Your task to perform on an android device: Open calendar and show me the second week of next month Image 0: 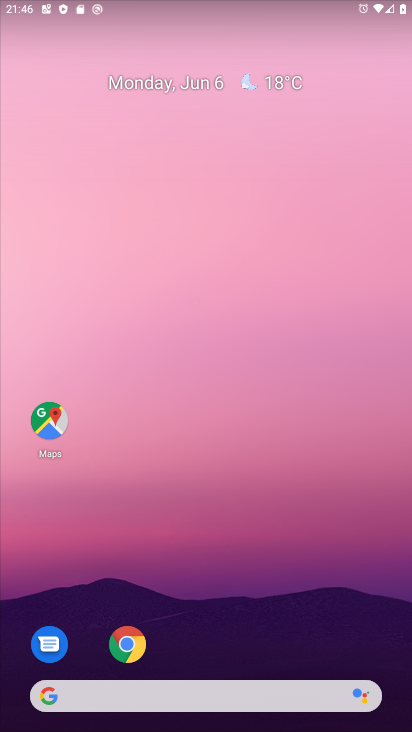
Step 0: drag from (334, 603) to (357, 158)
Your task to perform on an android device: Open calendar and show me the second week of next month Image 1: 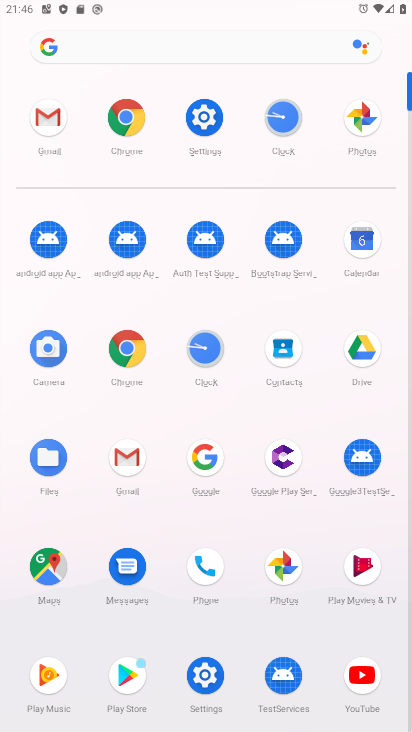
Step 1: click (371, 242)
Your task to perform on an android device: Open calendar and show me the second week of next month Image 2: 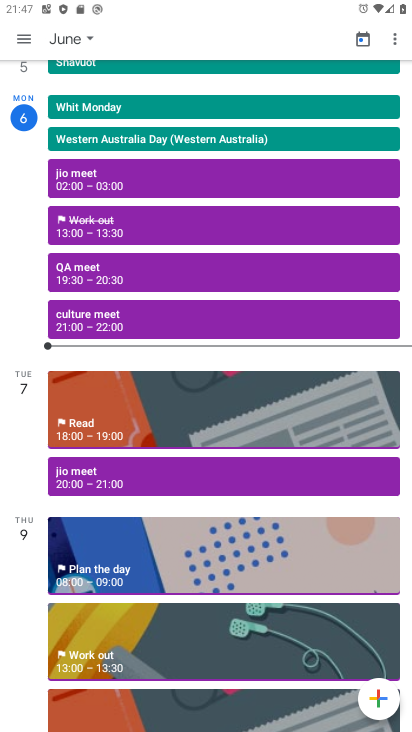
Step 2: click (75, 39)
Your task to perform on an android device: Open calendar and show me the second week of next month Image 3: 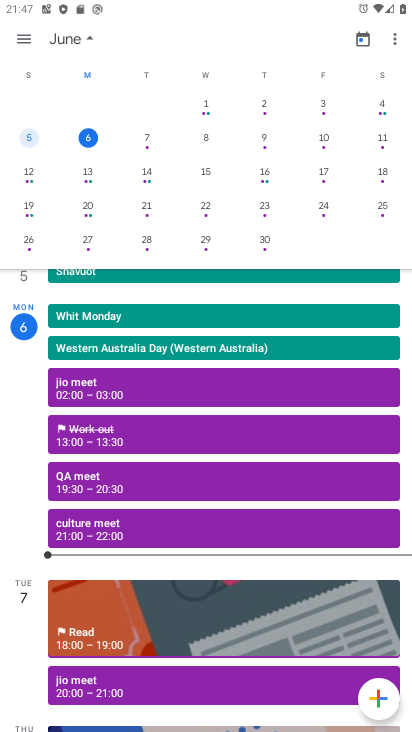
Step 3: drag from (378, 154) to (2, 183)
Your task to perform on an android device: Open calendar and show me the second week of next month Image 4: 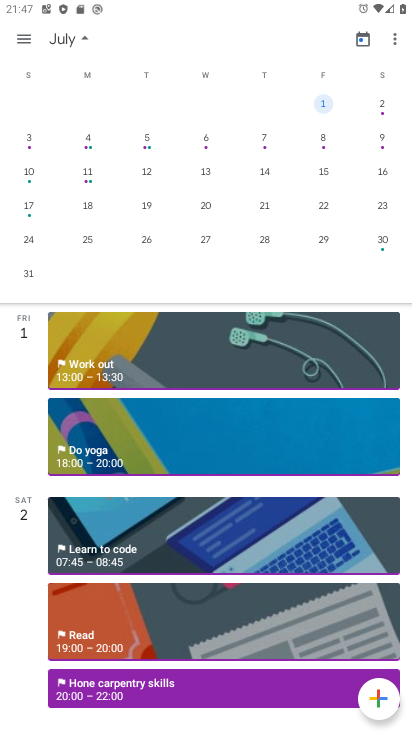
Step 4: click (24, 139)
Your task to perform on an android device: Open calendar and show me the second week of next month Image 5: 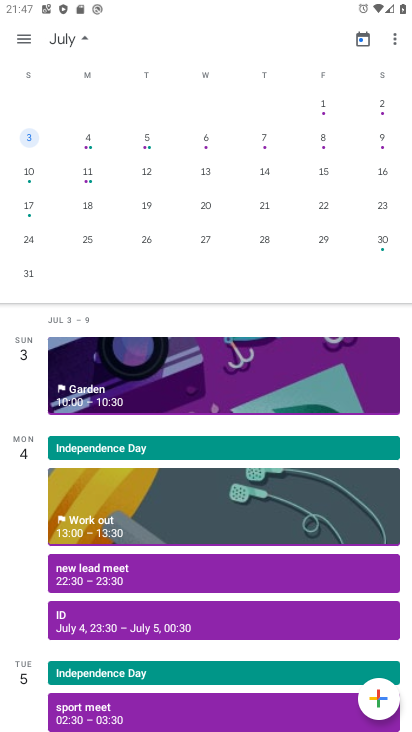
Step 5: task complete